Your task to perform on an android device: toggle translation in the chrome app Image 0: 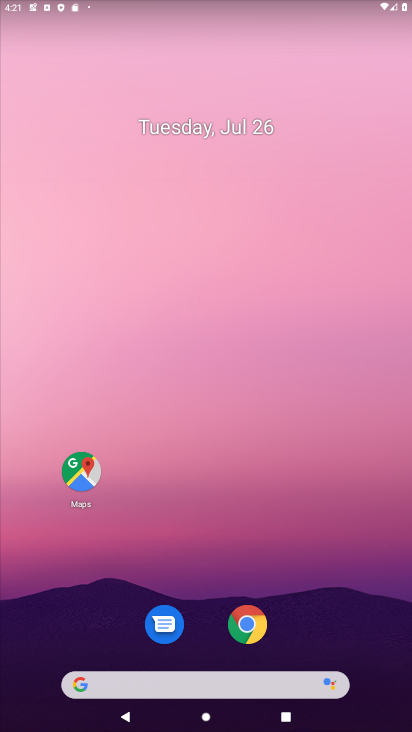
Step 0: drag from (278, 657) to (259, 27)
Your task to perform on an android device: toggle translation in the chrome app Image 1: 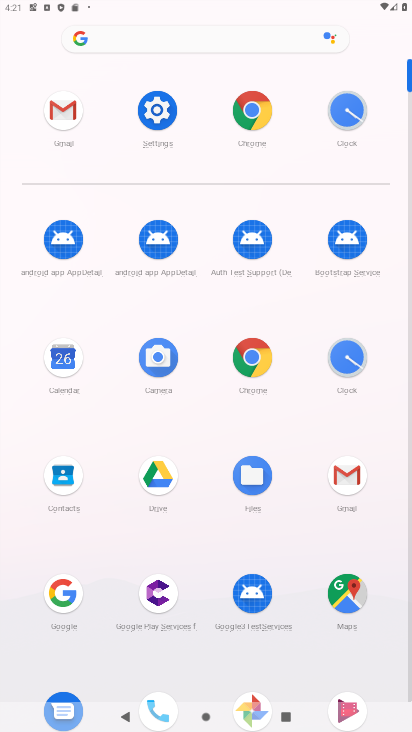
Step 1: click (266, 361)
Your task to perform on an android device: toggle translation in the chrome app Image 2: 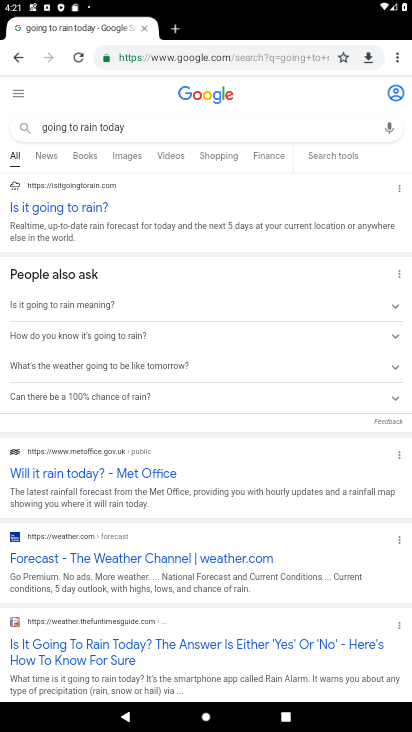
Step 2: click (398, 57)
Your task to perform on an android device: toggle translation in the chrome app Image 3: 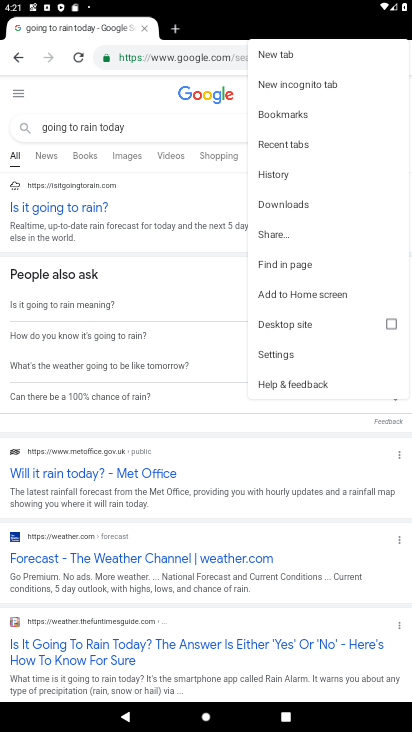
Step 3: click (292, 354)
Your task to perform on an android device: toggle translation in the chrome app Image 4: 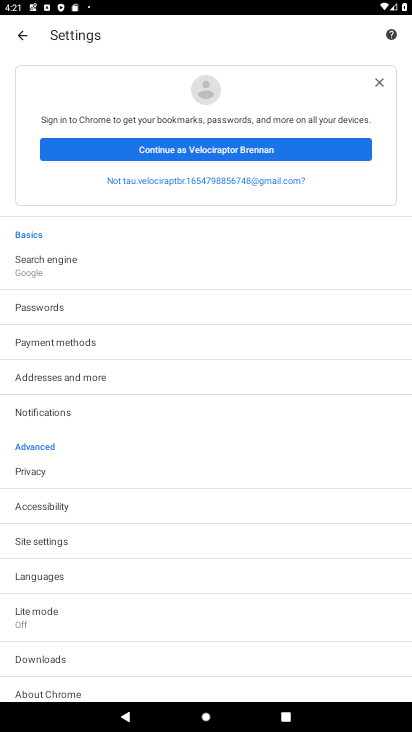
Step 4: click (84, 580)
Your task to perform on an android device: toggle translation in the chrome app Image 5: 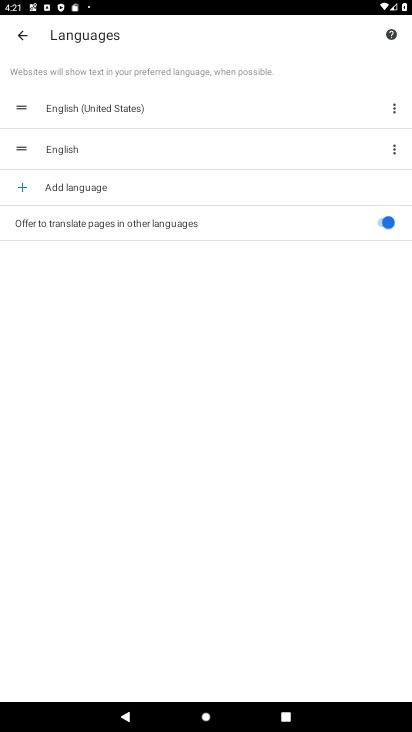
Step 5: click (384, 223)
Your task to perform on an android device: toggle translation in the chrome app Image 6: 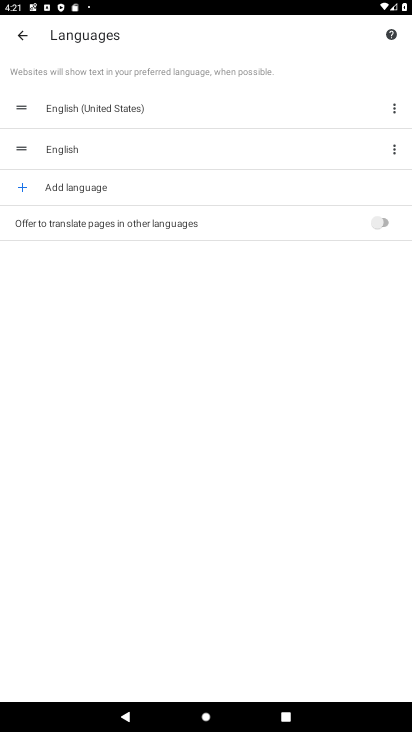
Step 6: task complete